Your task to perform on an android device: Check the weather Image 0: 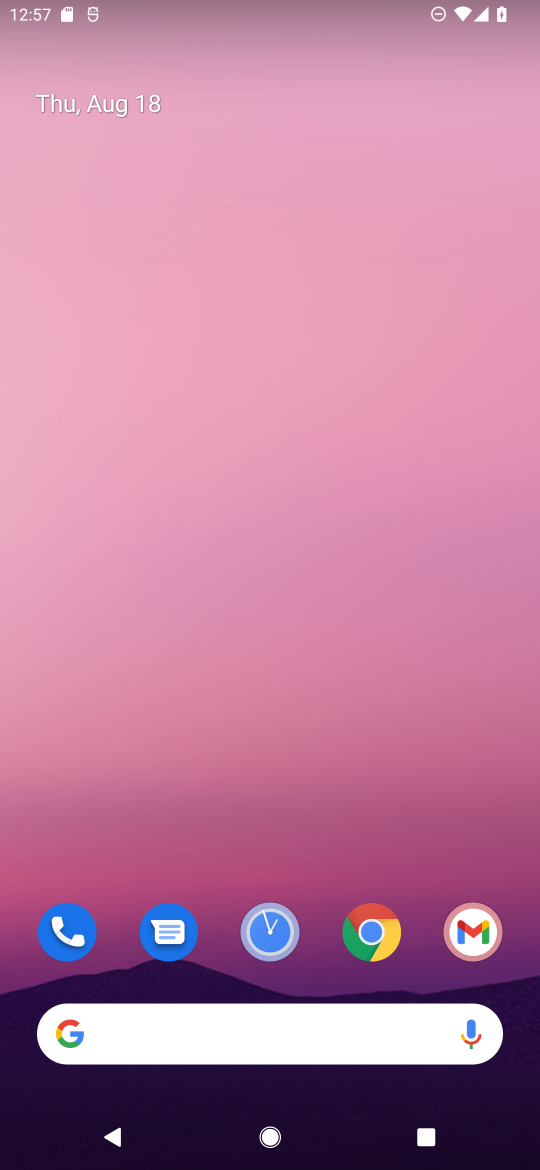
Step 0: drag from (310, 816) to (310, 3)
Your task to perform on an android device: Check the weather Image 1: 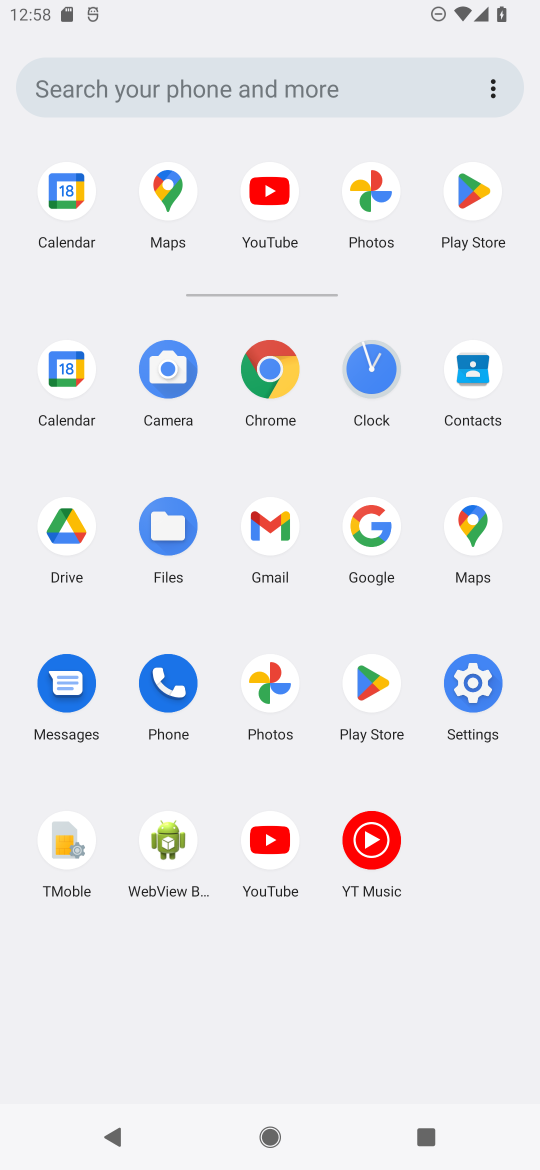
Step 1: click (365, 532)
Your task to perform on an android device: Check the weather Image 2: 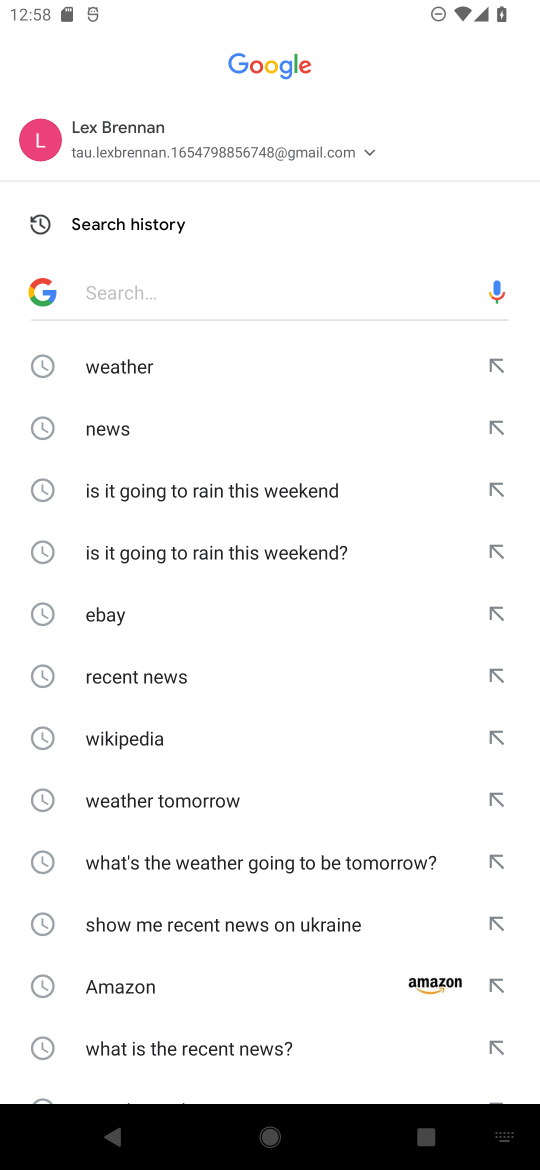
Step 2: click (103, 359)
Your task to perform on an android device: Check the weather Image 3: 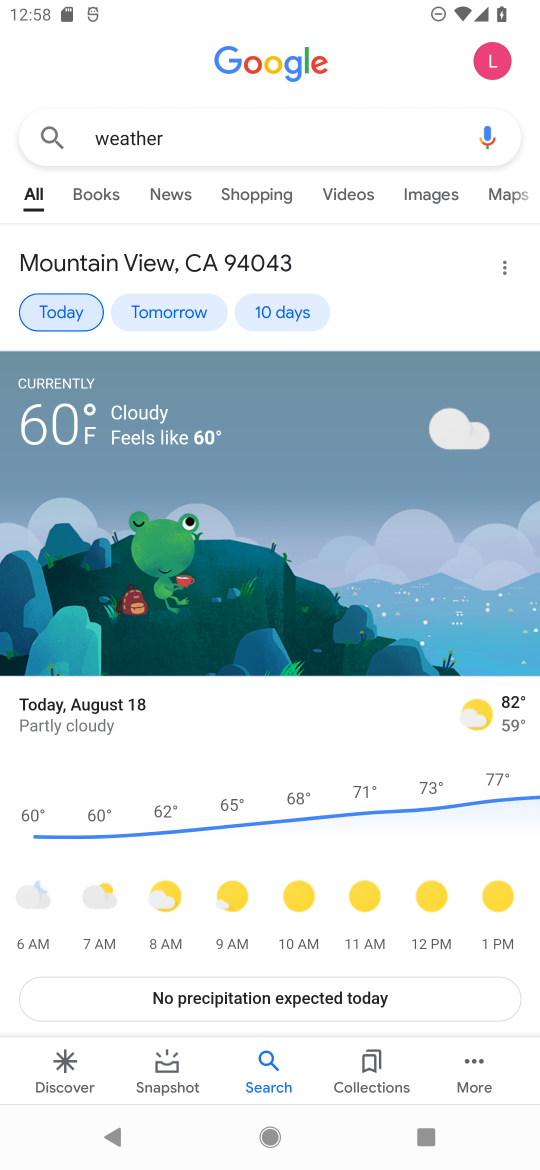
Step 3: task complete